Your task to perform on an android device: toggle data saver in the chrome app Image 0: 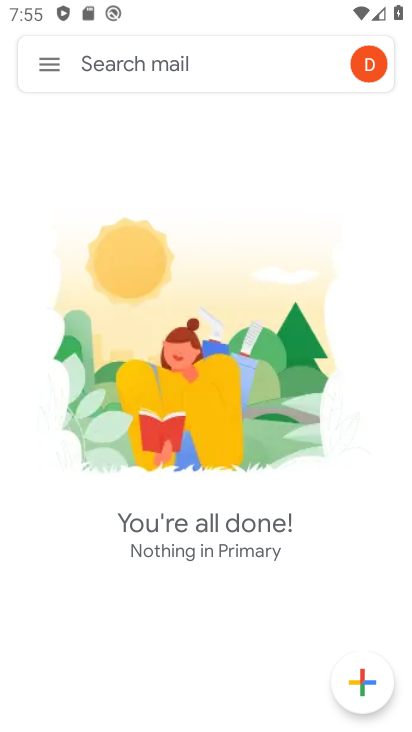
Step 0: press home button
Your task to perform on an android device: toggle data saver in the chrome app Image 1: 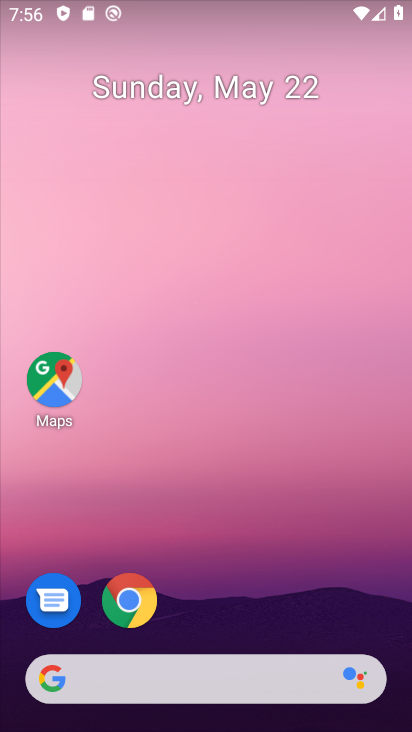
Step 1: click (122, 591)
Your task to perform on an android device: toggle data saver in the chrome app Image 2: 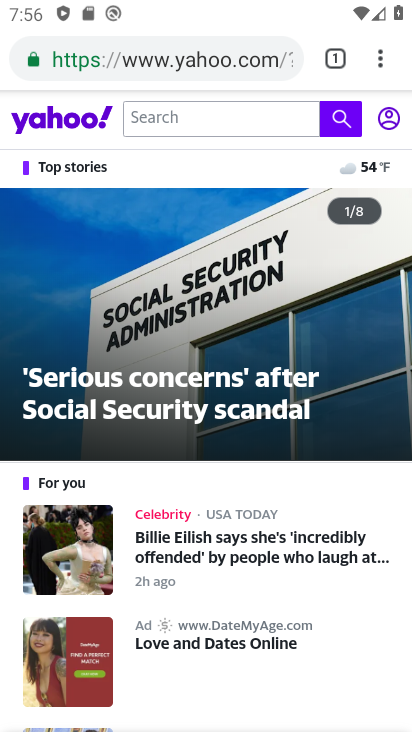
Step 2: click (382, 54)
Your task to perform on an android device: toggle data saver in the chrome app Image 3: 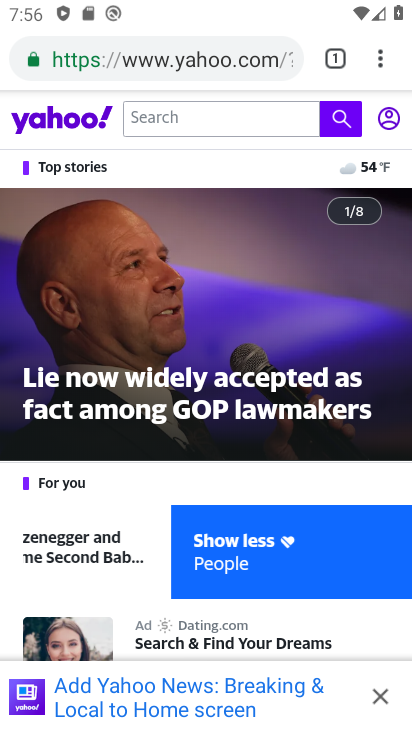
Step 3: click (378, 59)
Your task to perform on an android device: toggle data saver in the chrome app Image 4: 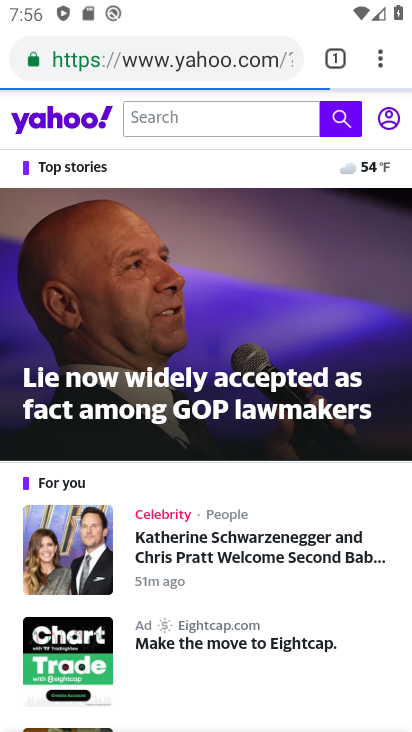
Step 4: click (374, 55)
Your task to perform on an android device: toggle data saver in the chrome app Image 5: 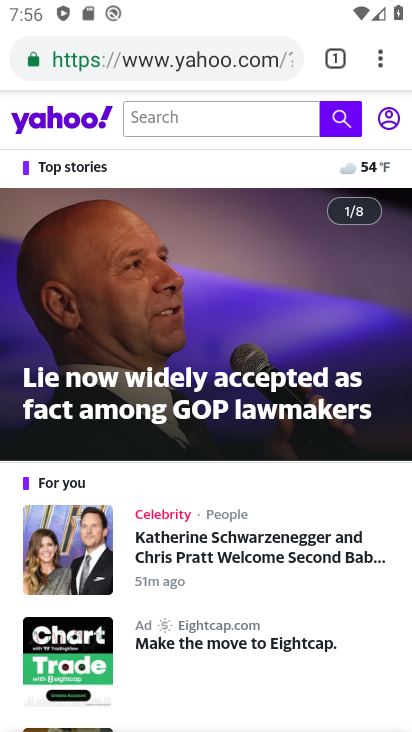
Step 5: click (380, 61)
Your task to perform on an android device: toggle data saver in the chrome app Image 6: 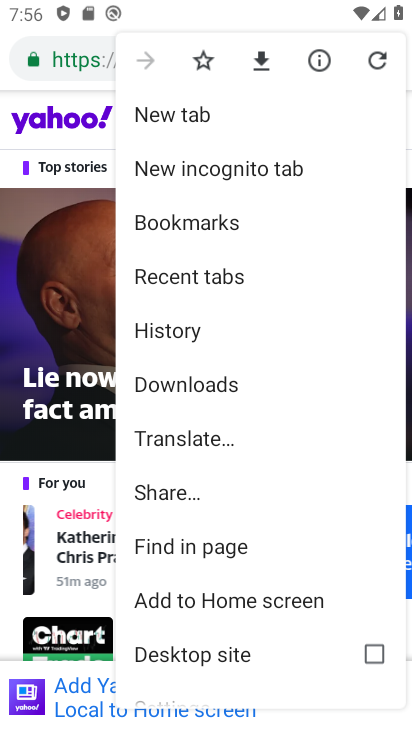
Step 6: drag from (199, 666) to (199, 320)
Your task to perform on an android device: toggle data saver in the chrome app Image 7: 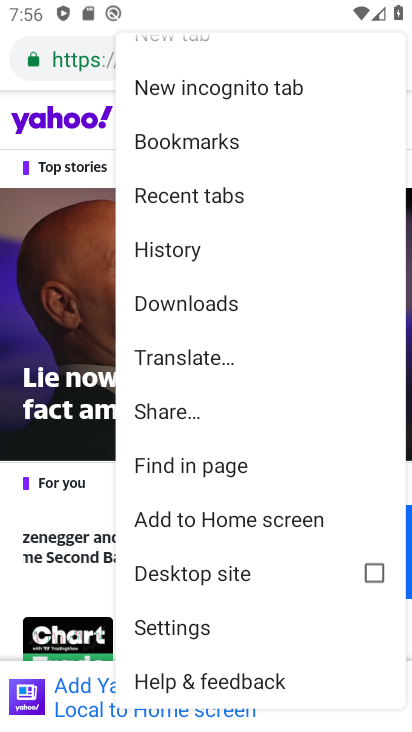
Step 7: click (189, 622)
Your task to perform on an android device: toggle data saver in the chrome app Image 8: 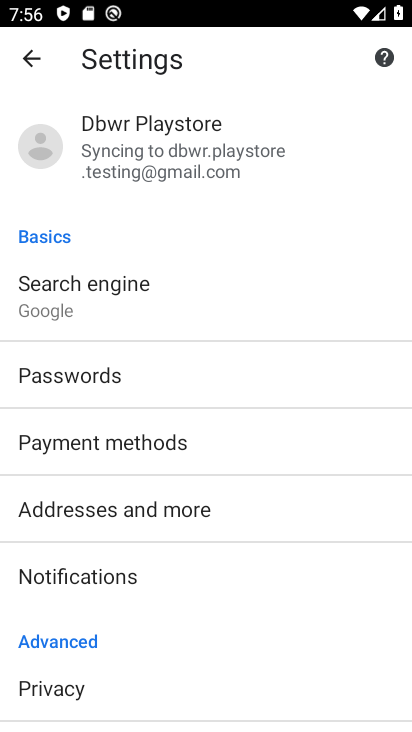
Step 8: drag from (148, 679) to (156, 289)
Your task to perform on an android device: toggle data saver in the chrome app Image 9: 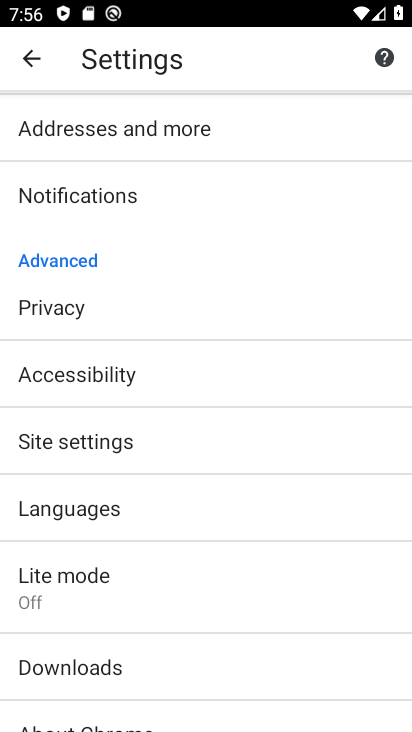
Step 9: click (90, 582)
Your task to perform on an android device: toggle data saver in the chrome app Image 10: 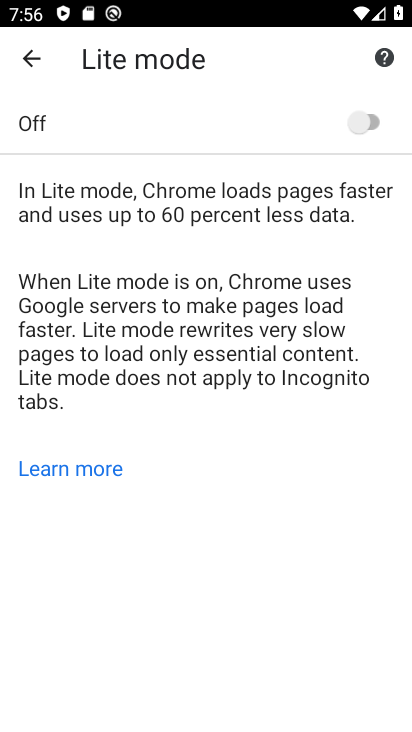
Step 10: click (368, 119)
Your task to perform on an android device: toggle data saver in the chrome app Image 11: 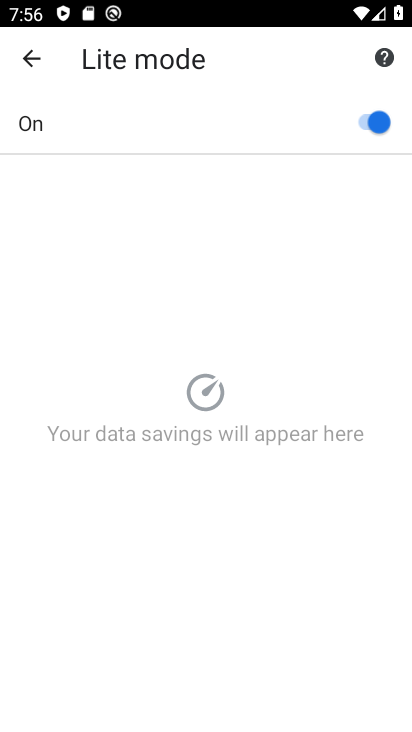
Step 11: task complete